Your task to perform on an android device: set default search engine in the chrome app Image 0: 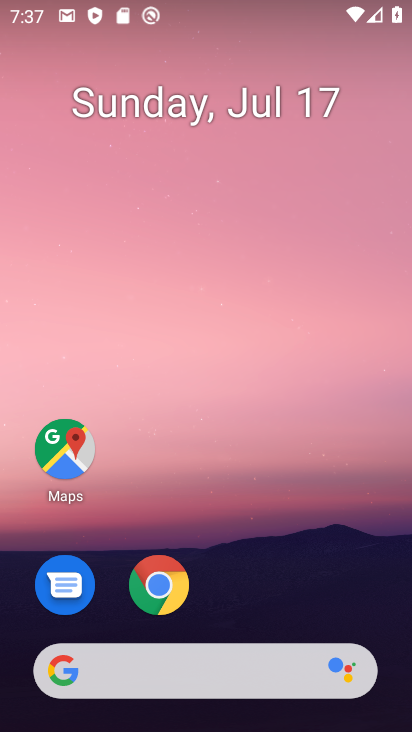
Step 0: click (165, 591)
Your task to perform on an android device: set default search engine in the chrome app Image 1: 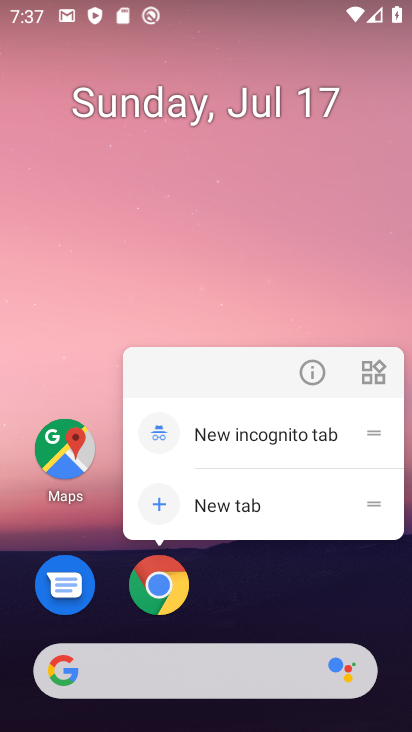
Step 1: click (157, 596)
Your task to perform on an android device: set default search engine in the chrome app Image 2: 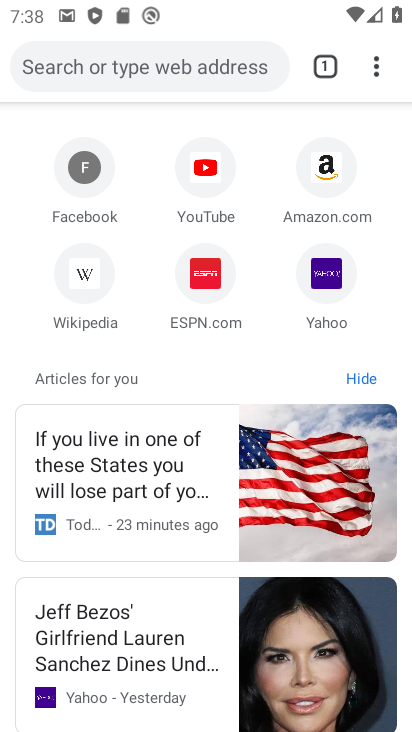
Step 2: drag from (375, 69) to (247, 538)
Your task to perform on an android device: set default search engine in the chrome app Image 3: 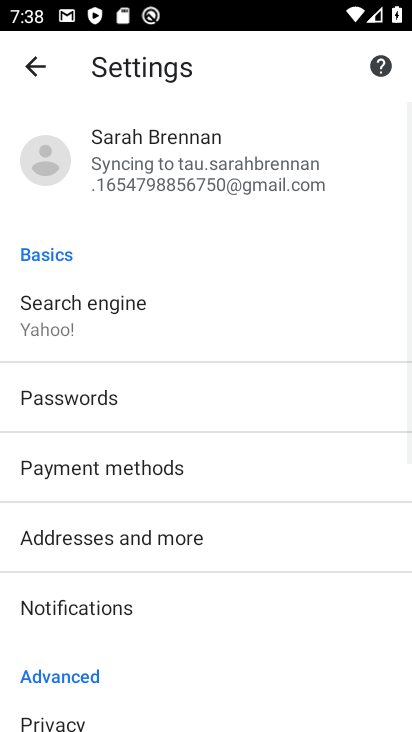
Step 3: click (97, 306)
Your task to perform on an android device: set default search engine in the chrome app Image 4: 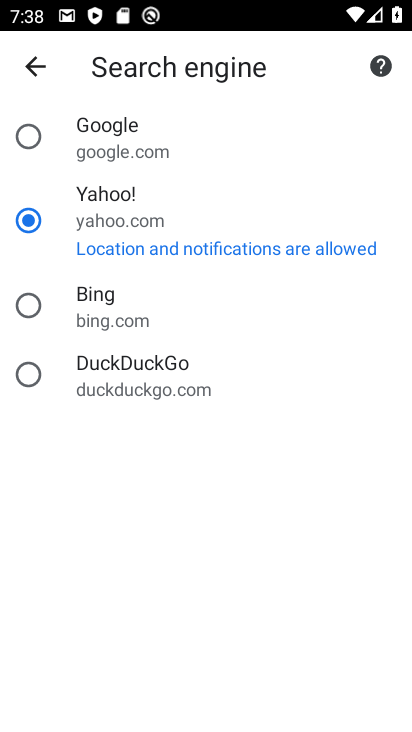
Step 4: click (31, 142)
Your task to perform on an android device: set default search engine in the chrome app Image 5: 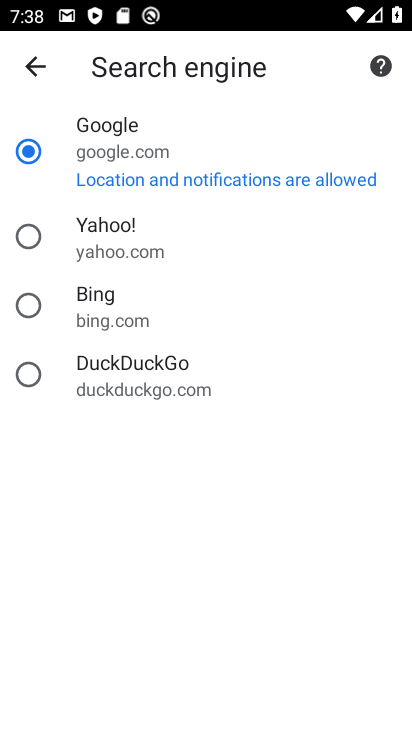
Step 5: task complete